Your task to perform on an android device: Open Google Chrome and click the shortcut for Amazon.com Image 0: 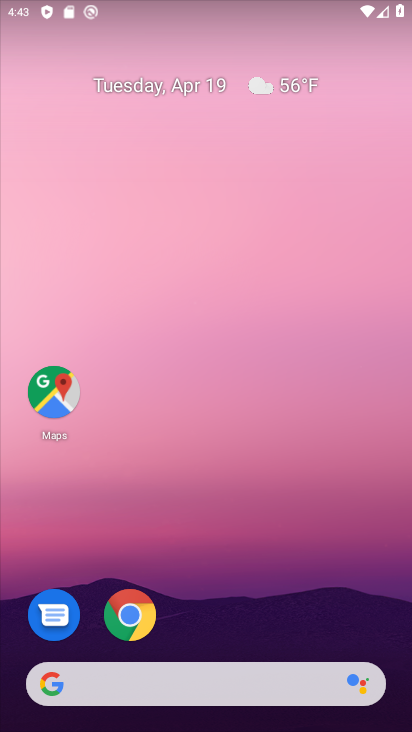
Step 0: click (124, 617)
Your task to perform on an android device: Open Google Chrome and click the shortcut for Amazon.com Image 1: 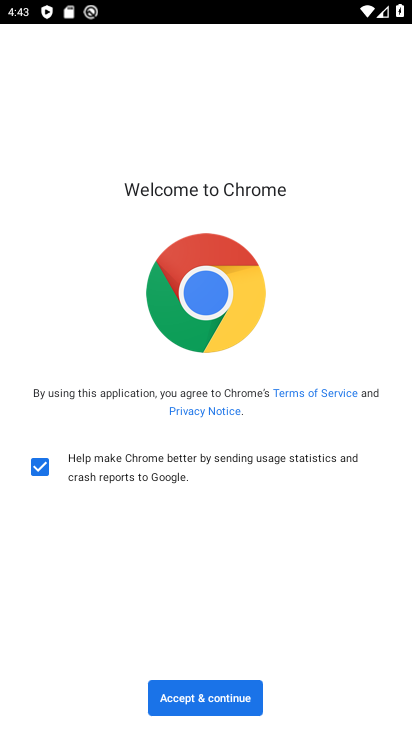
Step 1: click (208, 694)
Your task to perform on an android device: Open Google Chrome and click the shortcut for Amazon.com Image 2: 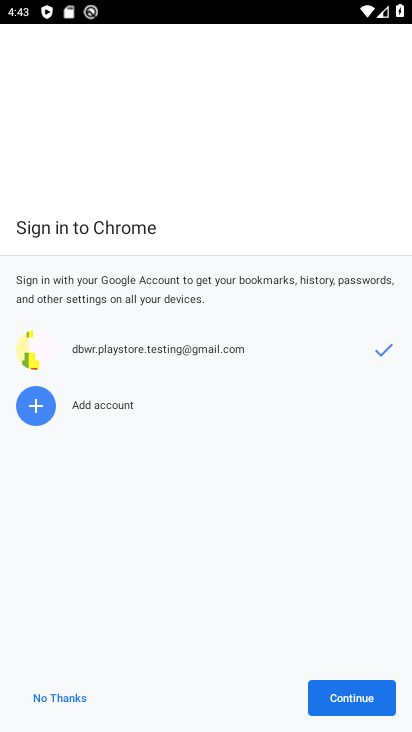
Step 2: click (354, 692)
Your task to perform on an android device: Open Google Chrome and click the shortcut for Amazon.com Image 3: 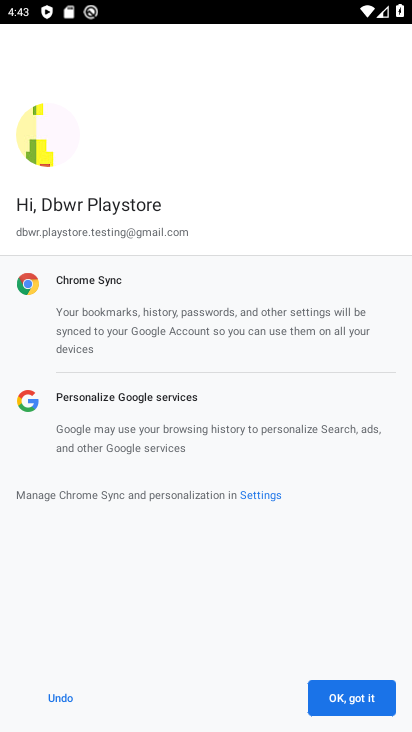
Step 3: click (354, 692)
Your task to perform on an android device: Open Google Chrome and click the shortcut for Amazon.com Image 4: 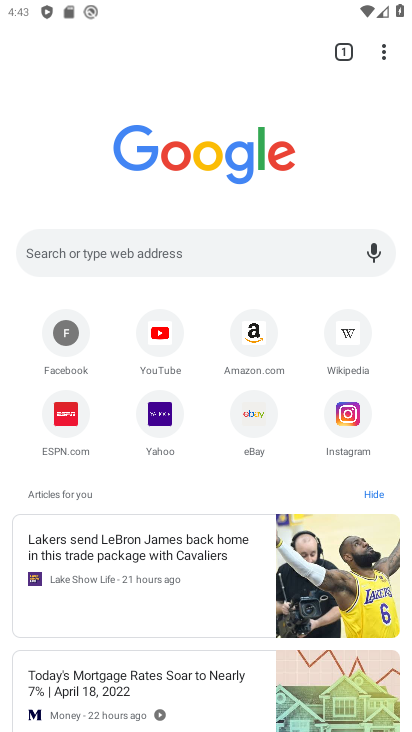
Step 4: click (256, 335)
Your task to perform on an android device: Open Google Chrome and click the shortcut for Amazon.com Image 5: 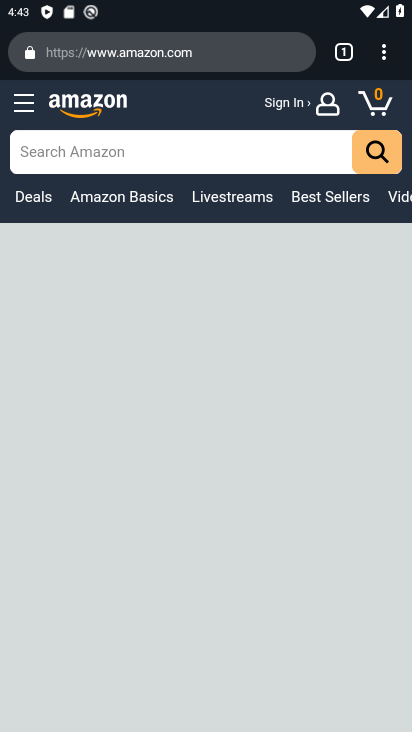
Step 5: task complete